Your task to perform on an android device: Open wifi settings Image 0: 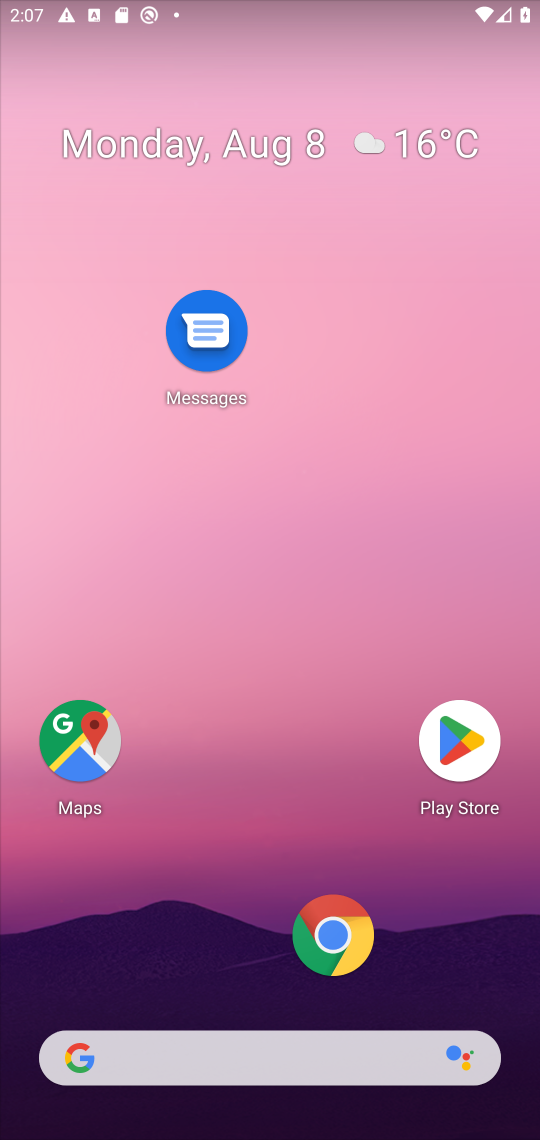
Step 0: drag from (217, 1043) to (74, 223)
Your task to perform on an android device: Open wifi settings Image 1: 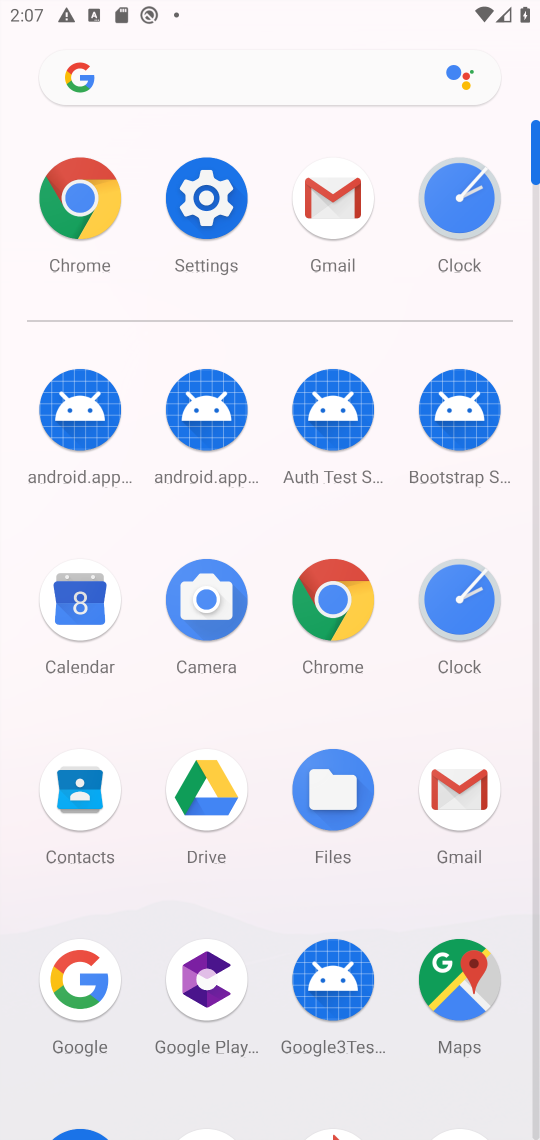
Step 1: click (211, 222)
Your task to perform on an android device: Open wifi settings Image 2: 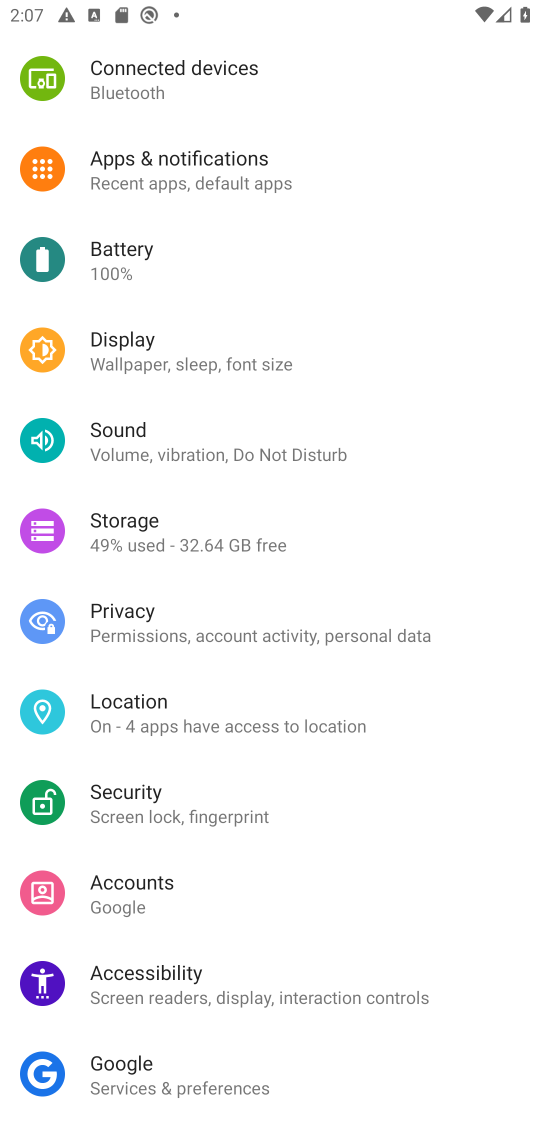
Step 2: drag from (497, 309) to (203, 883)
Your task to perform on an android device: Open wifi settings Image 3: 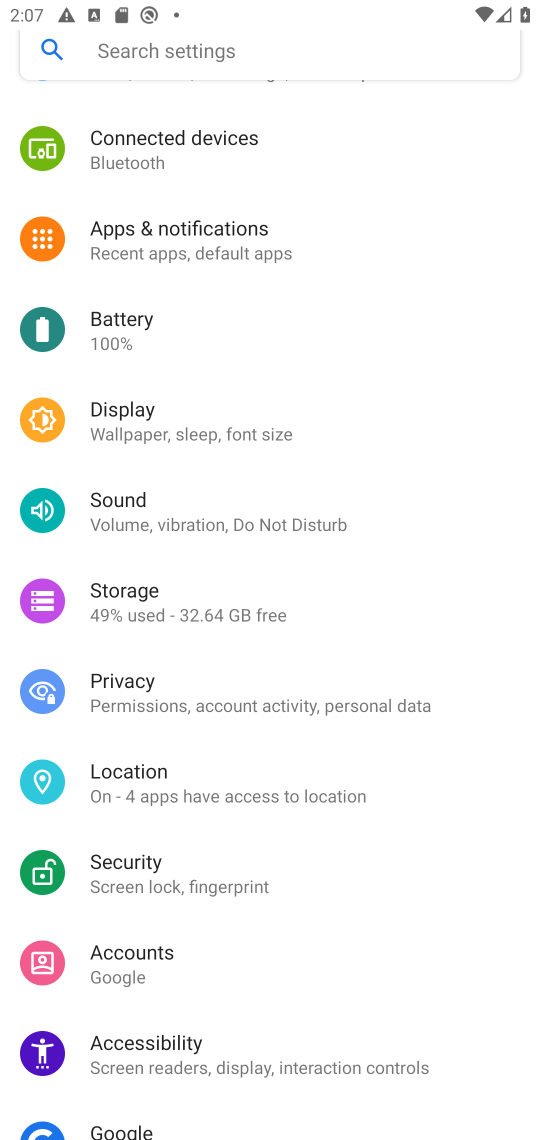
Step 3: drag from (478, 256) to (483, 684)
Your task to perform on an android device: Open wifi settings Image 4: 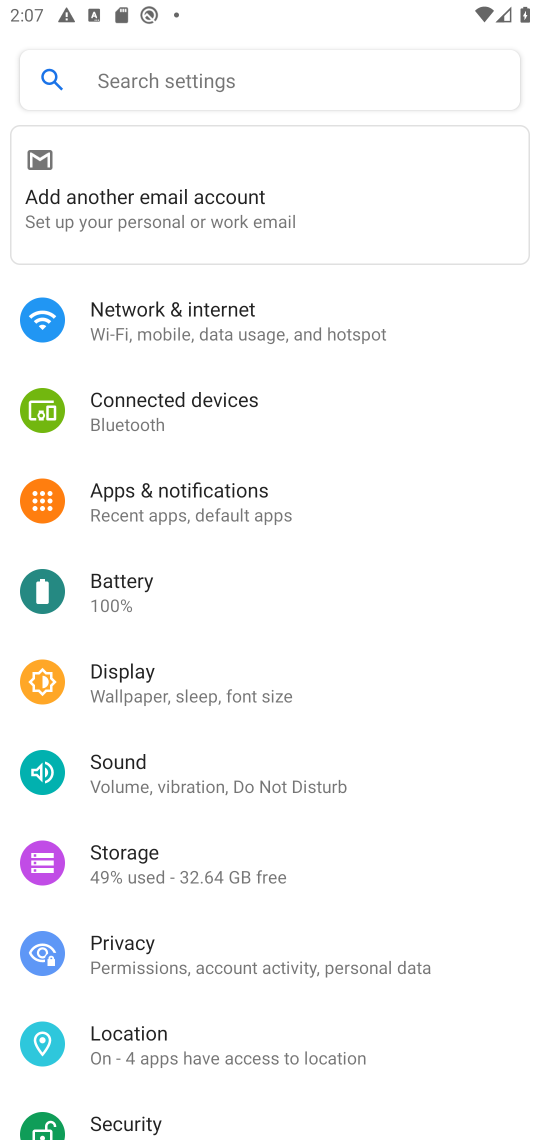
Step 4: click (216, 270)
Your task to perform on an android device: Open wifi settings Image 5: 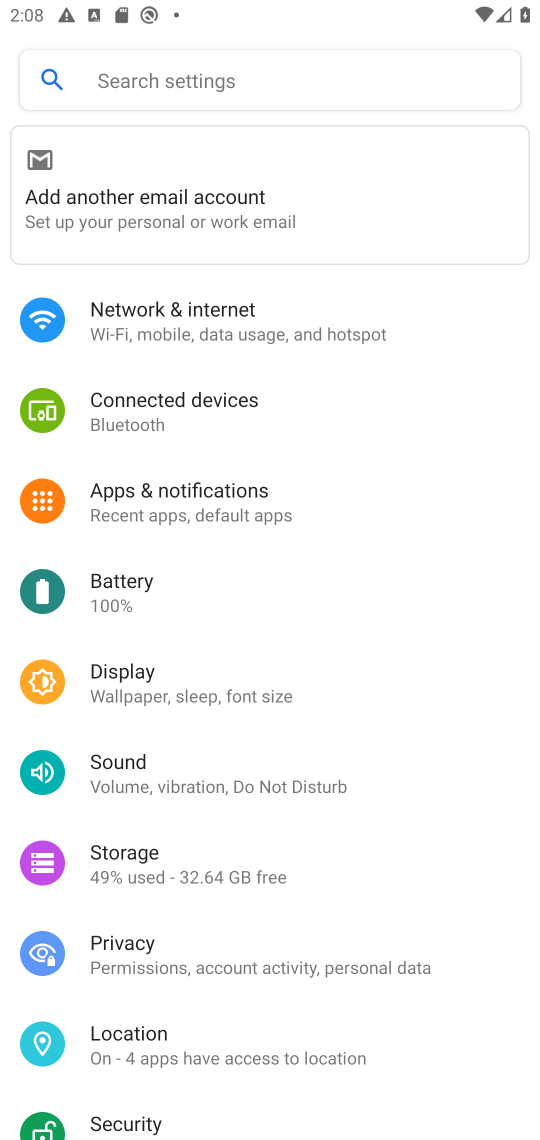
Step 5: click (306, 320)
Your task to perform on an android device: Open wifi settings Image 6: 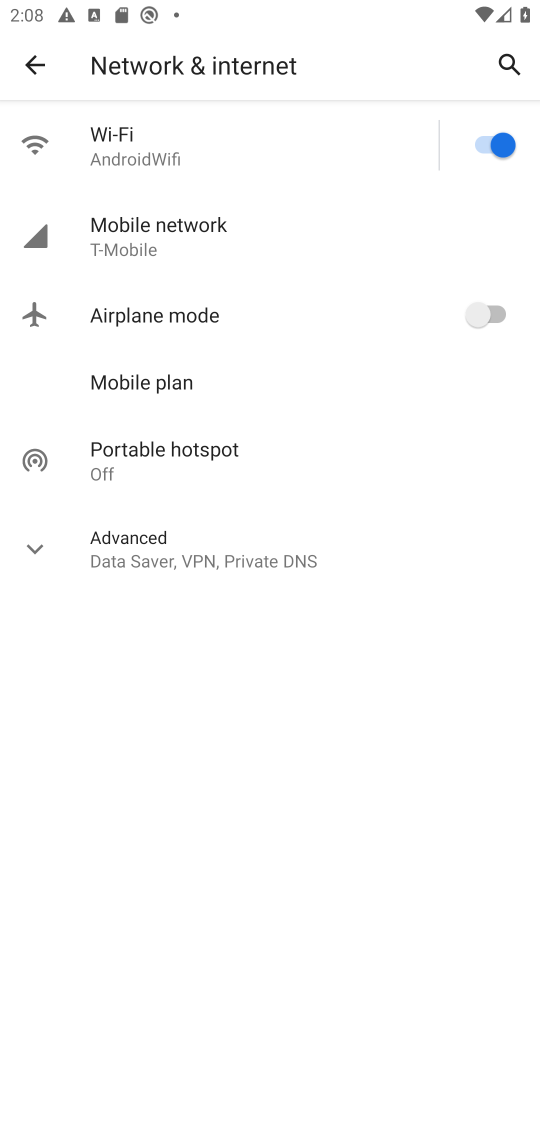
Step 6: click (187, 162)
Your task to perform on an android device: Open wifi settings Image 7: 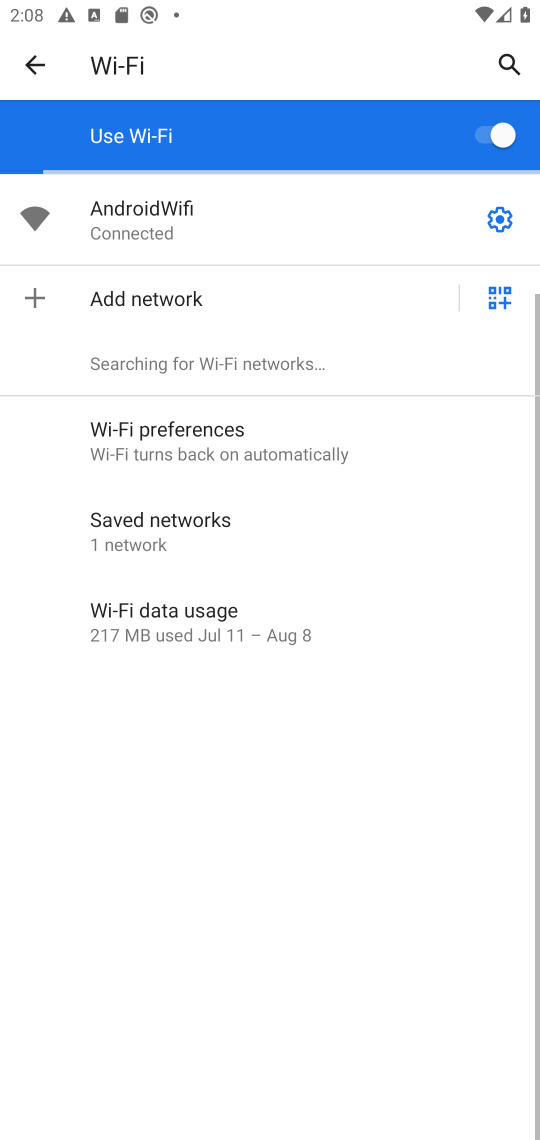
Step 7: task complete